Your task to perform on an android device: See recent photos Image 0: 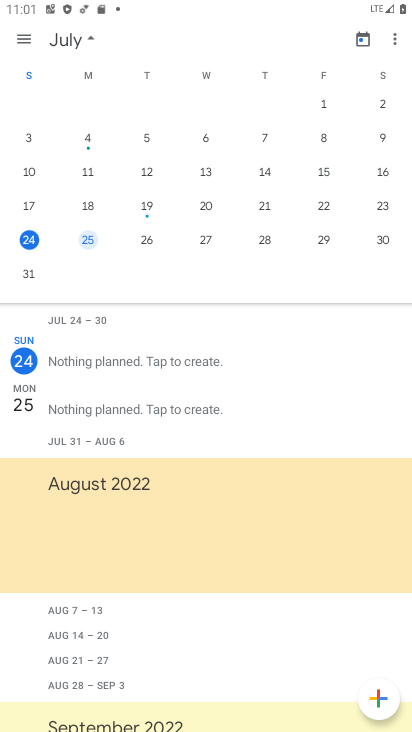
Step 0: press home button
Your task to perform on an android device: See recent photos Image 1: 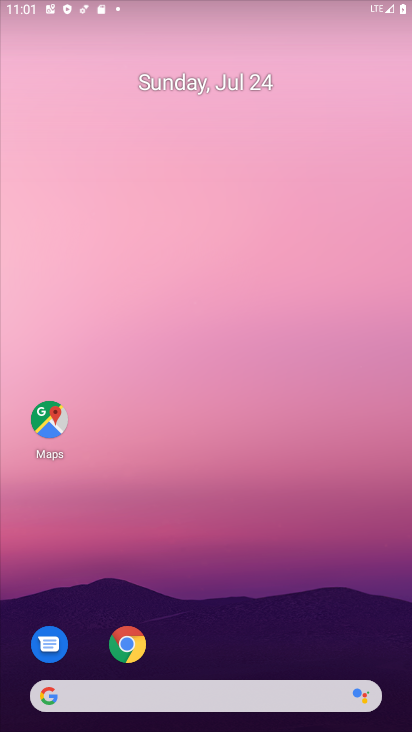
Step 1: drag from (62, 560) to (323, 91)
Your task to perform on an android device: See recent photos Image 2: 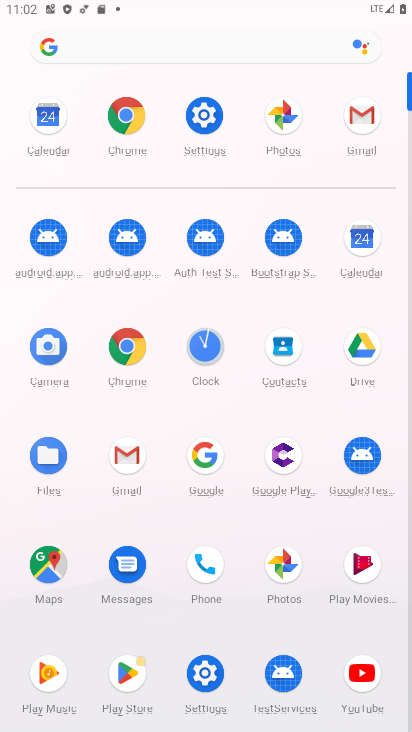
Step 2: click (285, 114)
Your task to perform on an android device: See recent photos Image 3: 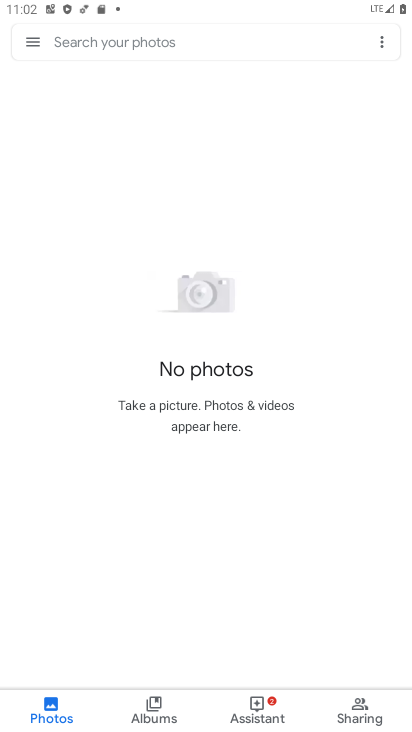
Step 3: task complete